Your task to perform on an android device: open chrome privacy settings Image 0: 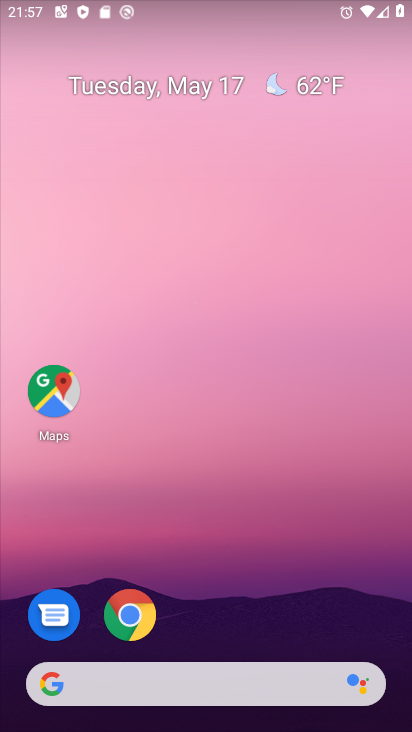
Step 0: click (120, 620)
Your task to perform on an android device: open chrome privacy settings Image 1: 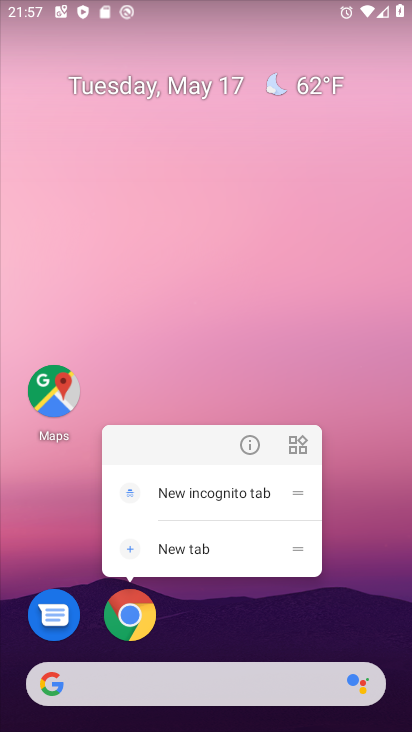
Step 1: click (120, 620)
Your task to perform on an android device: open chrome privacy settings Image 2: 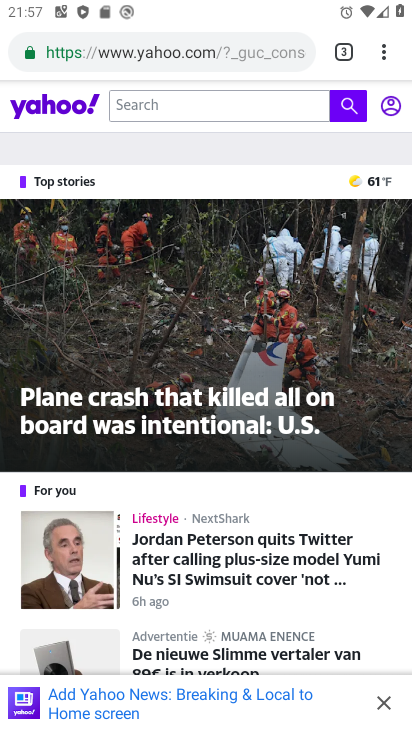
Step 2: drag from (378, 46) to (323, 627)
Your task to perform on an android device: open chrome privacy settings Image 3: 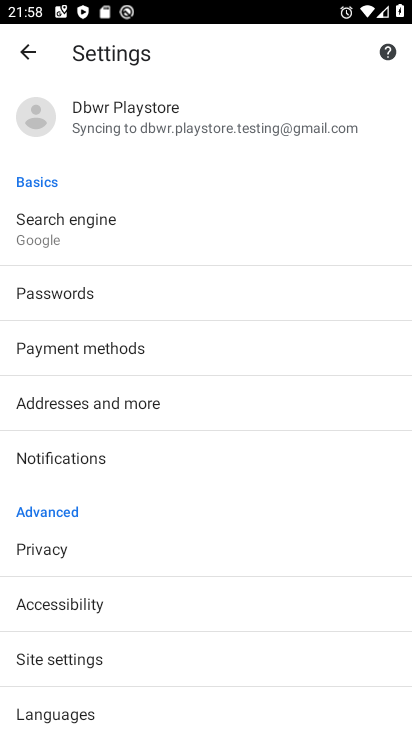
Step 3: click (166, 561)
Your task to perform on an android device: open chrome privacy settings Image 4: 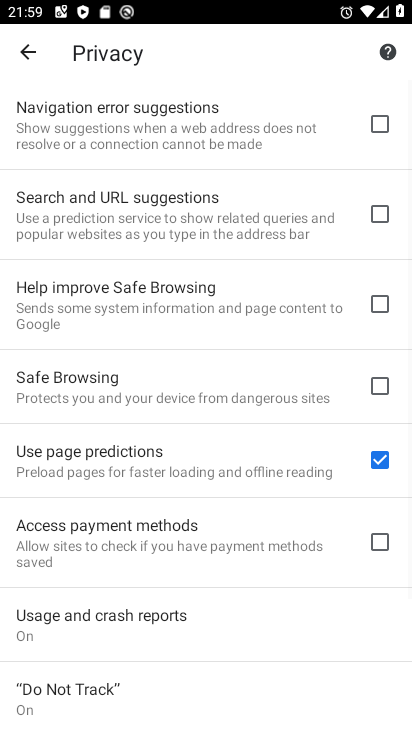
Step 4: task complete